Your task to perform on an android device: open app "Facebook Lite" (install if not already installed), go to login, and select forgot password Image 0: 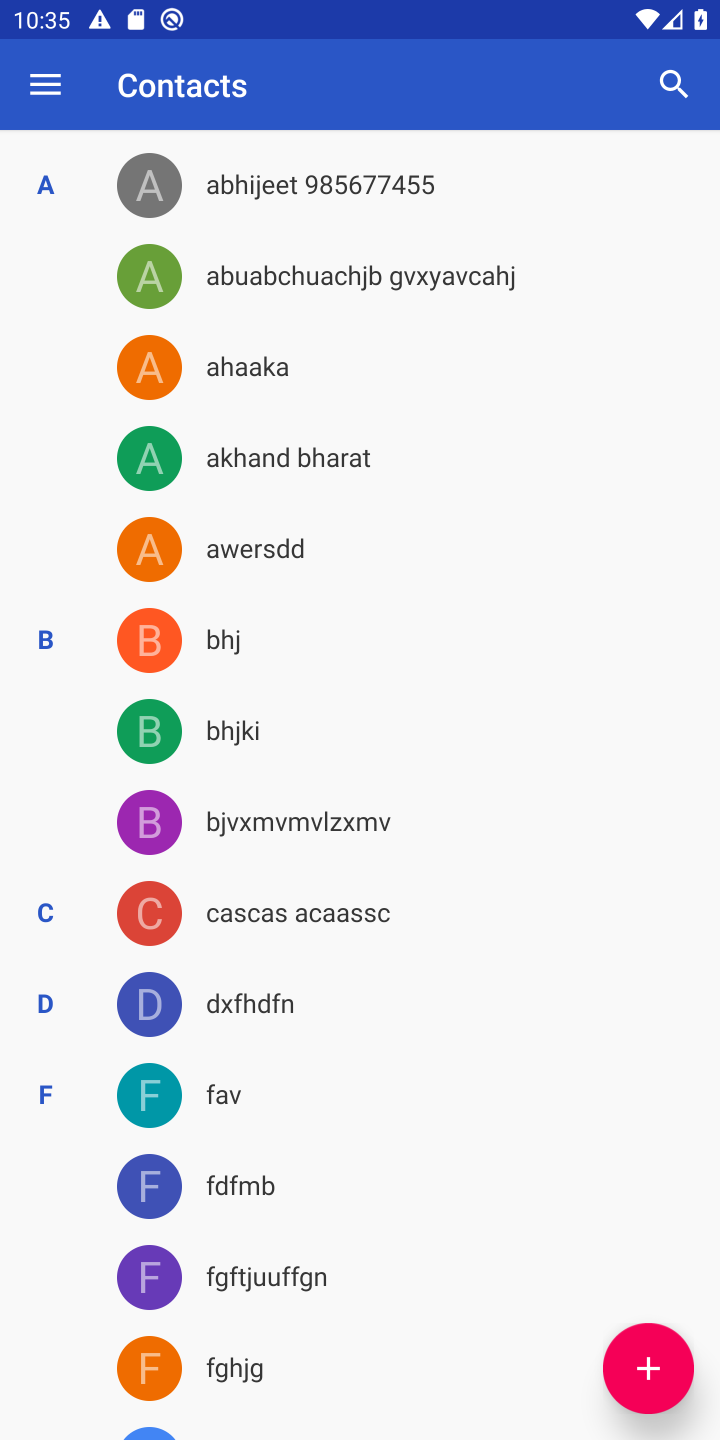
Step 0: press home button
Your task to perform on an android device: open app "Facebook Lite" (install if not already installed), go to login, and select forgot password Image 1: 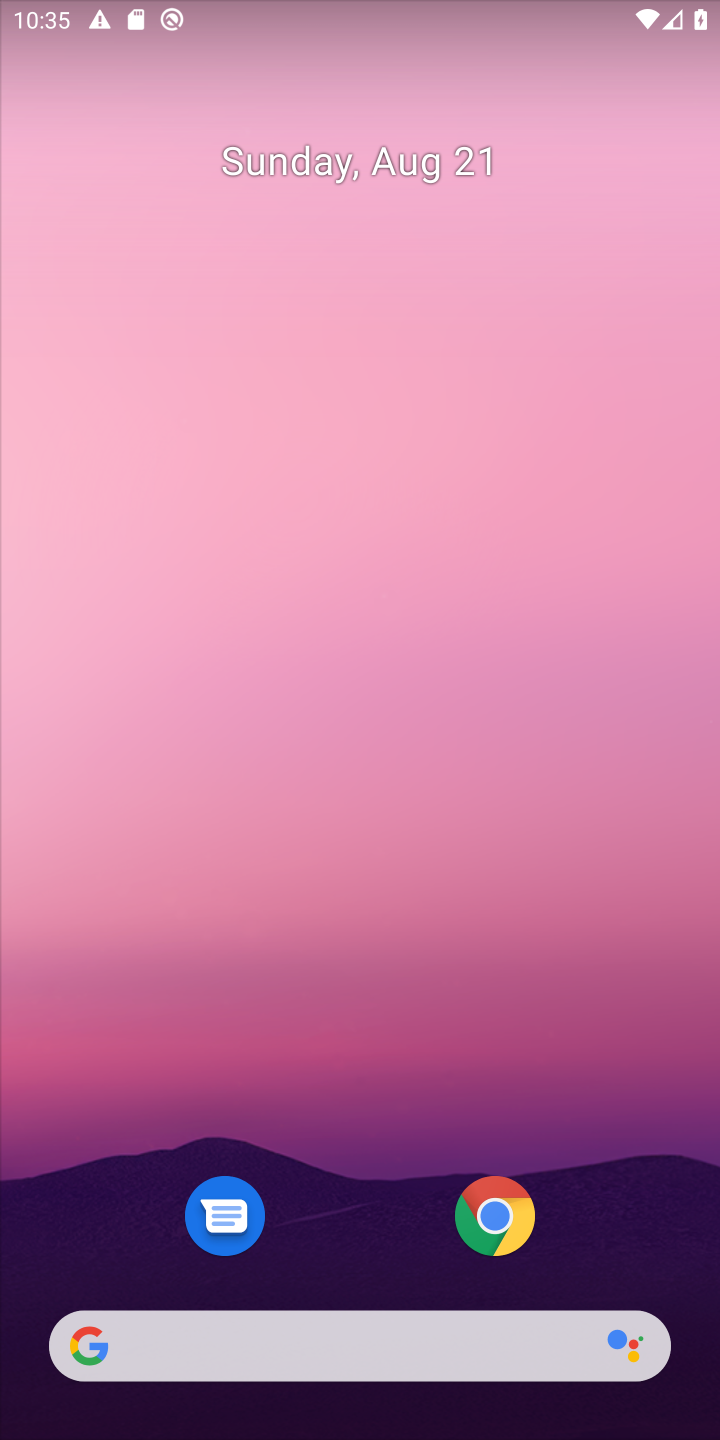
Step 1: drag from (101, 1037) to (351, 1)
Your task to perform on an android device: open app "Facebook Lite" (install if not already installed), go to login, and select forgot password Image 2: 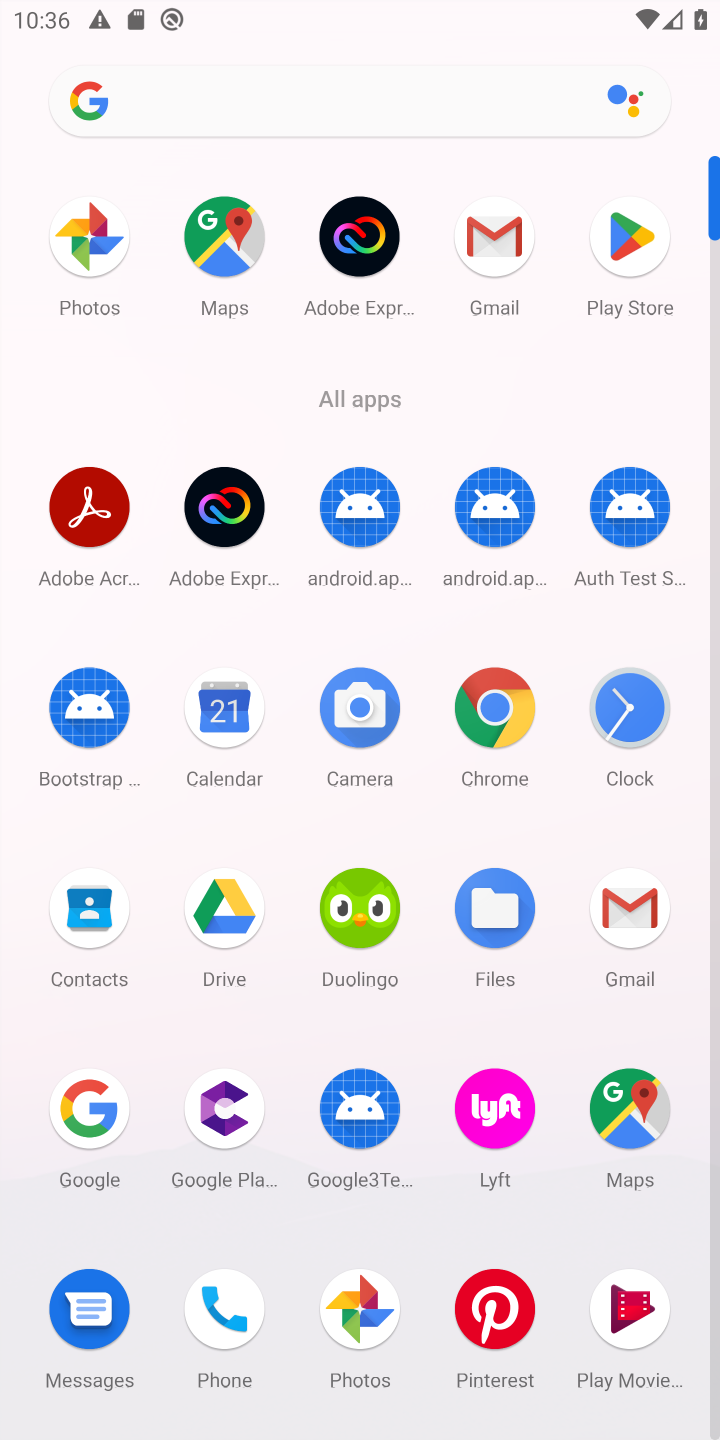
Step 2: click (656, 237)
Your task to perform on an android device: open app "Facebook Lite" (install if not already installed), go to login, and select forgot password Image 3: 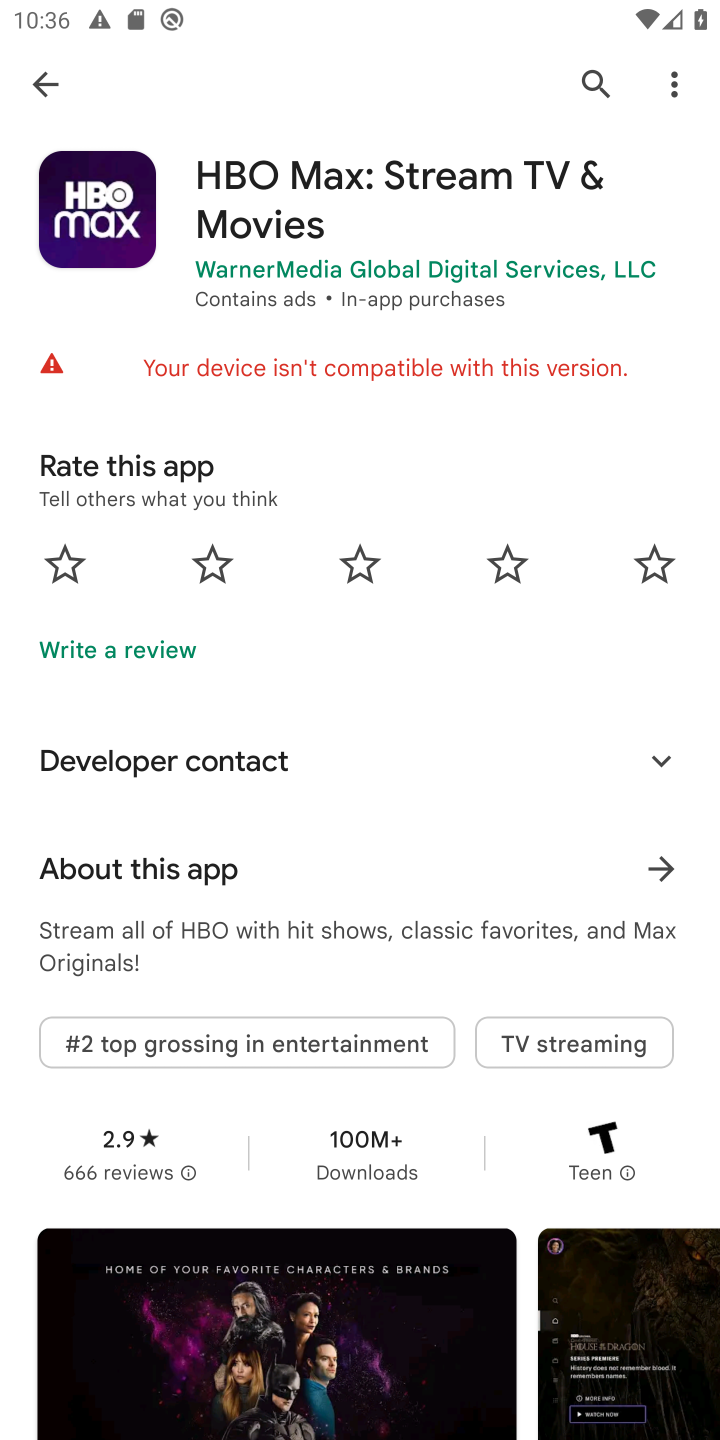
Step 3: press back button
Your task to perform on an android device: open app "Facebook Lite" (install if not already installed), go to login, and select forgot password Image 4: 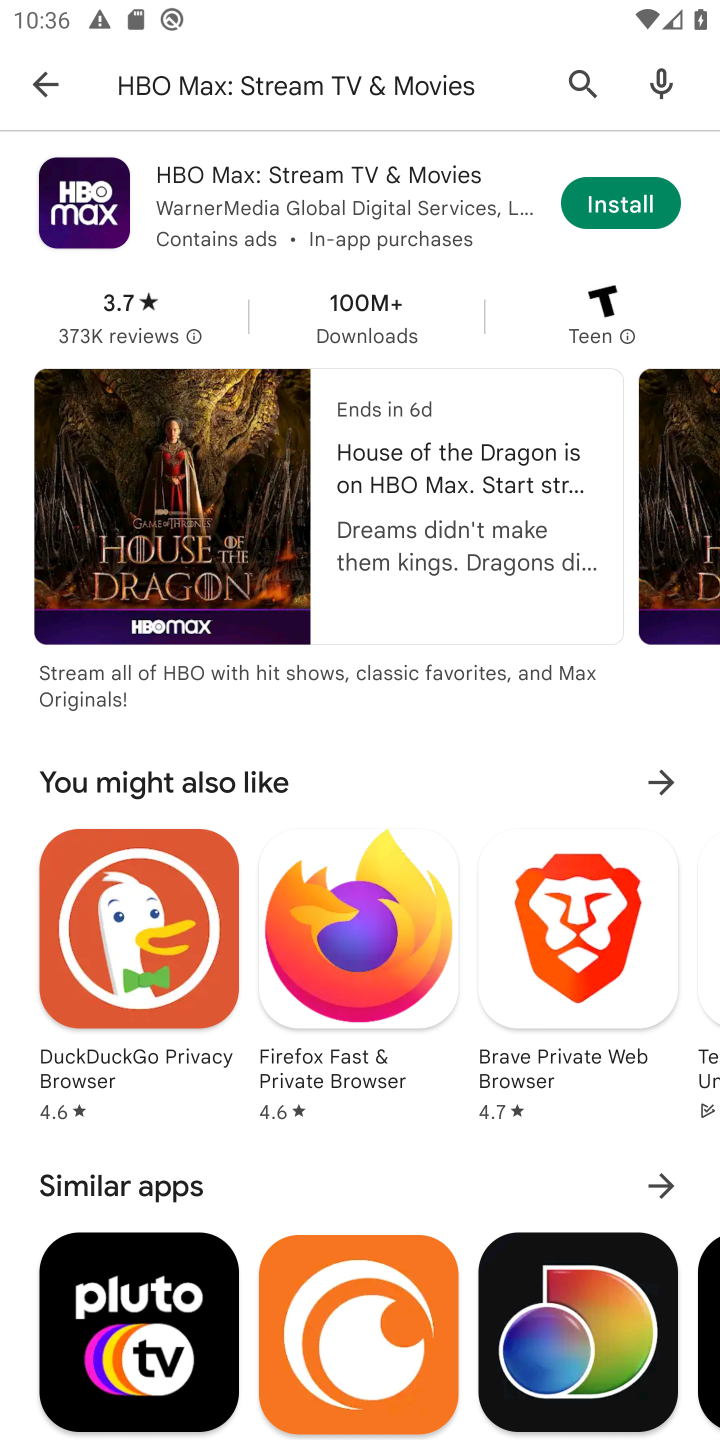
Step 4: press back button
Your task to perform on an android device: open app "Facebook Lite" (install if not already installed), go to login, and select forgot password Image 5: 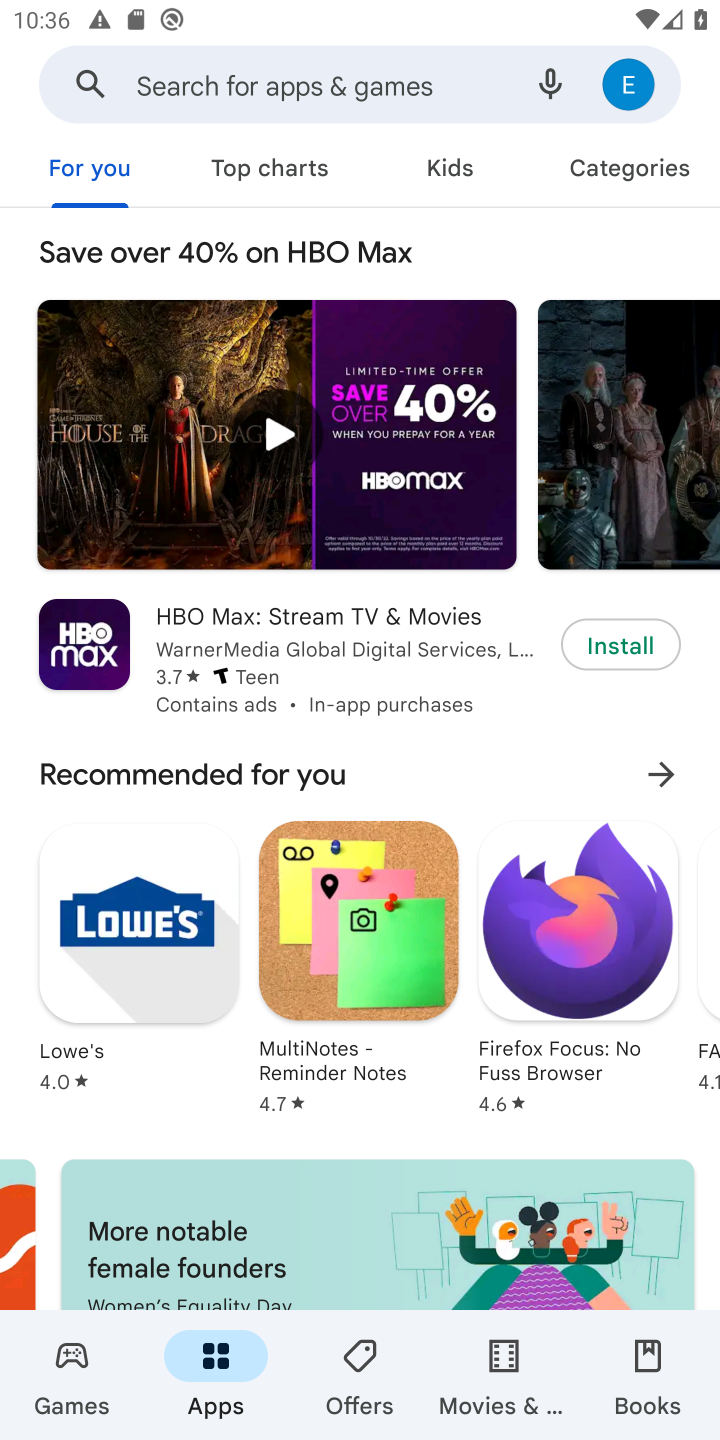
Step 5: click (330, 85)
Your task to perform on an android device: open app "Facebook Lite" (install if not already installed), go to login, and select forgot password Image 6: 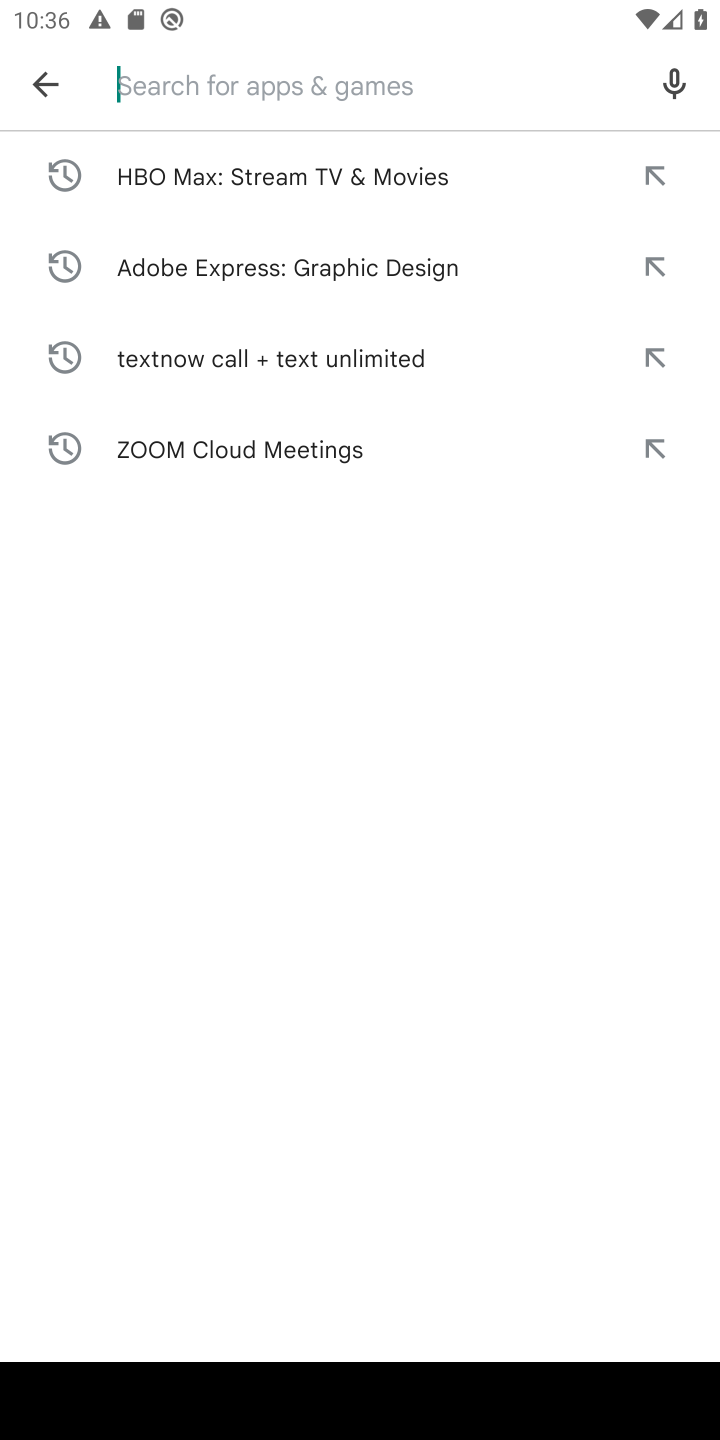
Step 6: type "Facebook Lite"
Your task to perform on an android device: open app "Facebook Lite" (install if not already installed), go to login, and select forgot password Image 7: 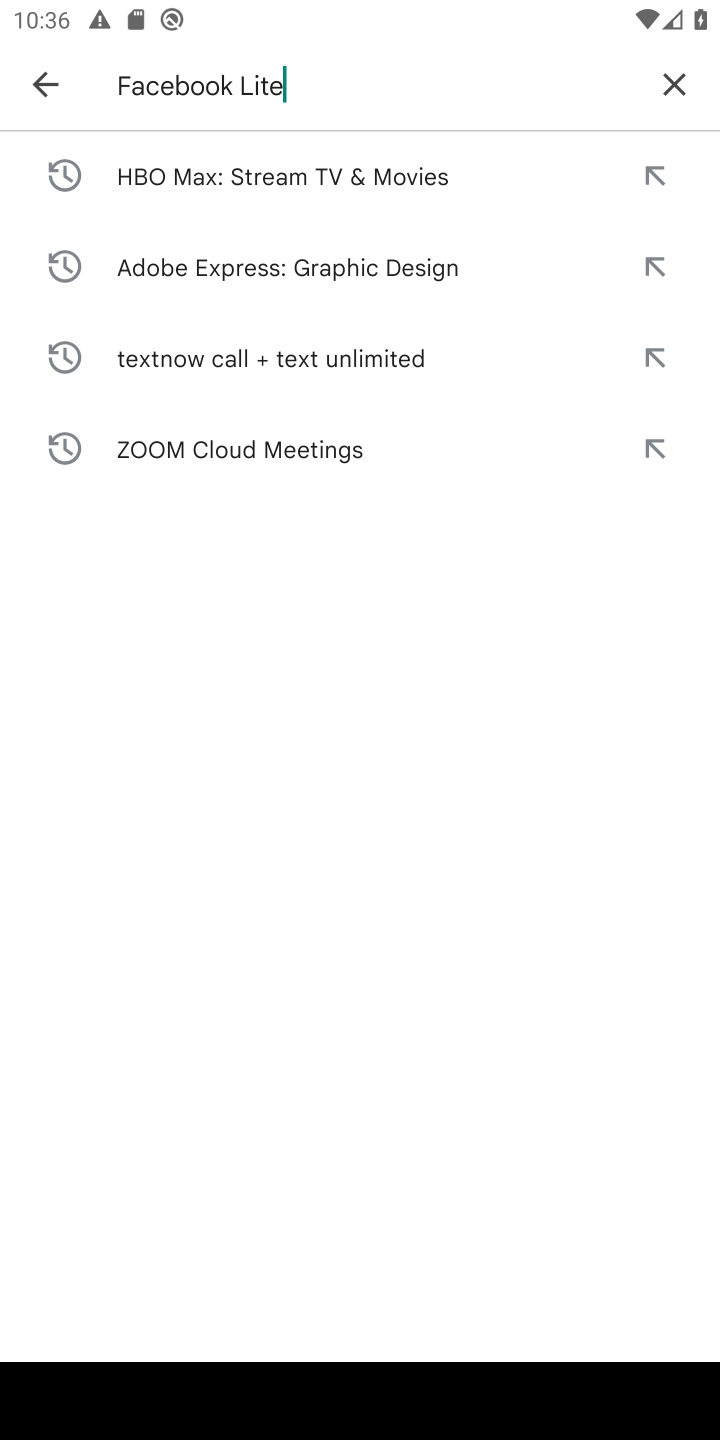
Step 7: press enter
Your task to perform on an android device: open app "Facebook Lite" (install if not already installed), go to login, and select forgot password Image 8: 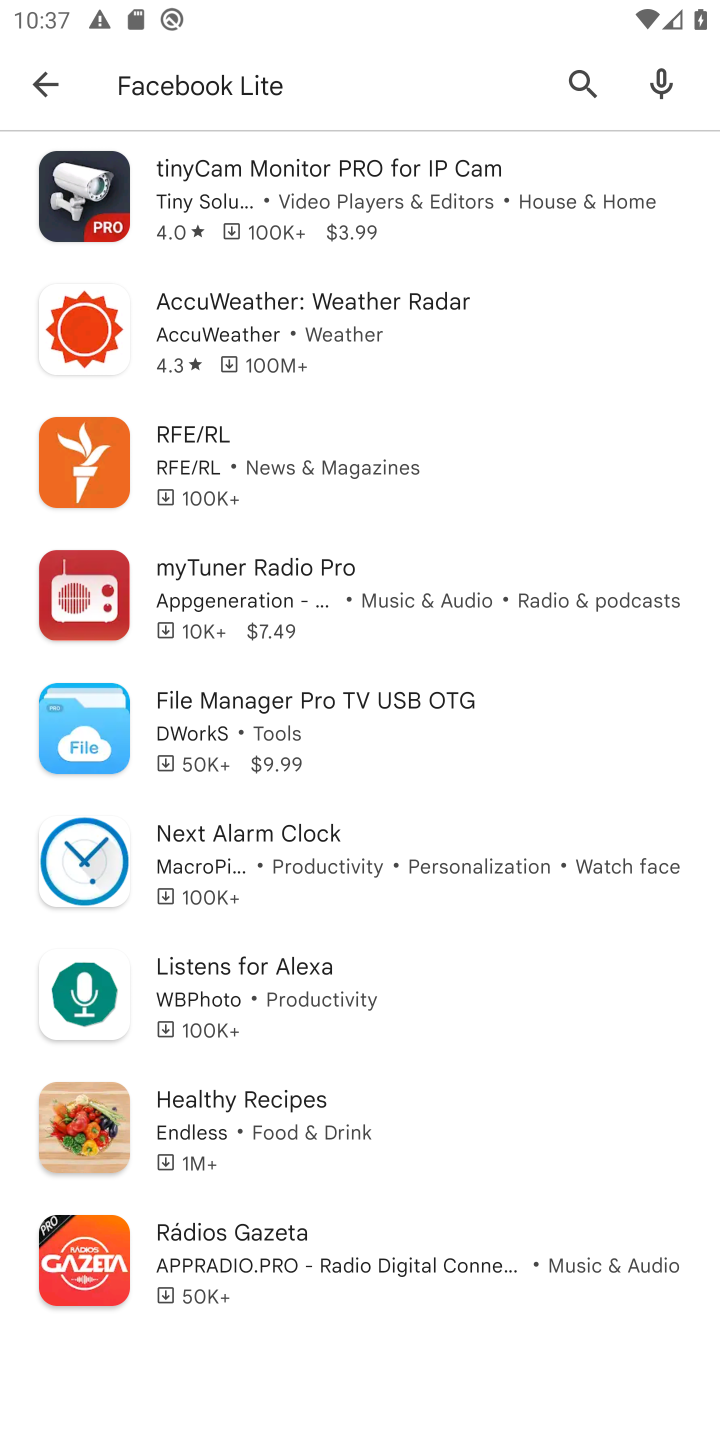
Step 8: drag from (244, 1170) to (358, 709)
Your task to perform on an android device: open app "Facebook Lite" (install if not already installed), go to login, and select forgot password Image 9: 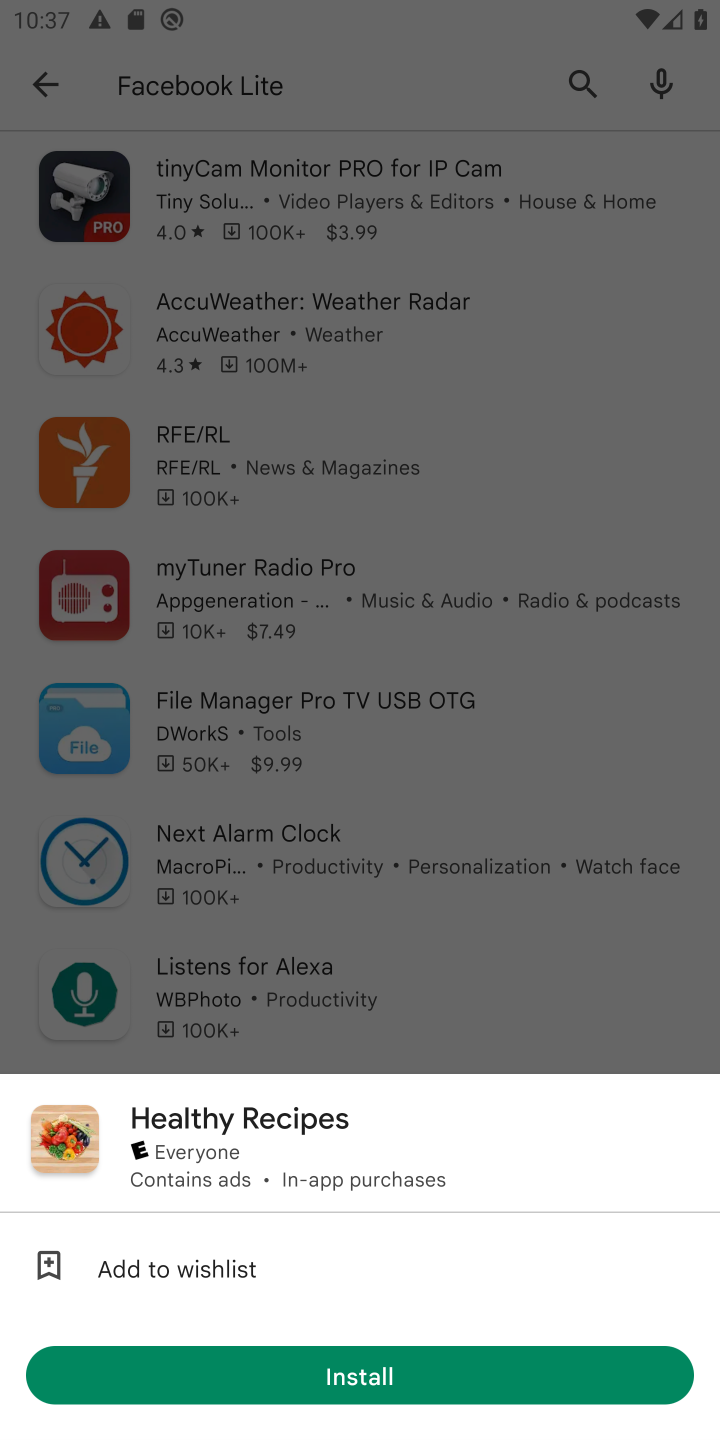
Step 9: press back button
Your task to perform on an android device: open app "Facebook Lite" (install if not already installed), go to login, and select forgot password Image 10: 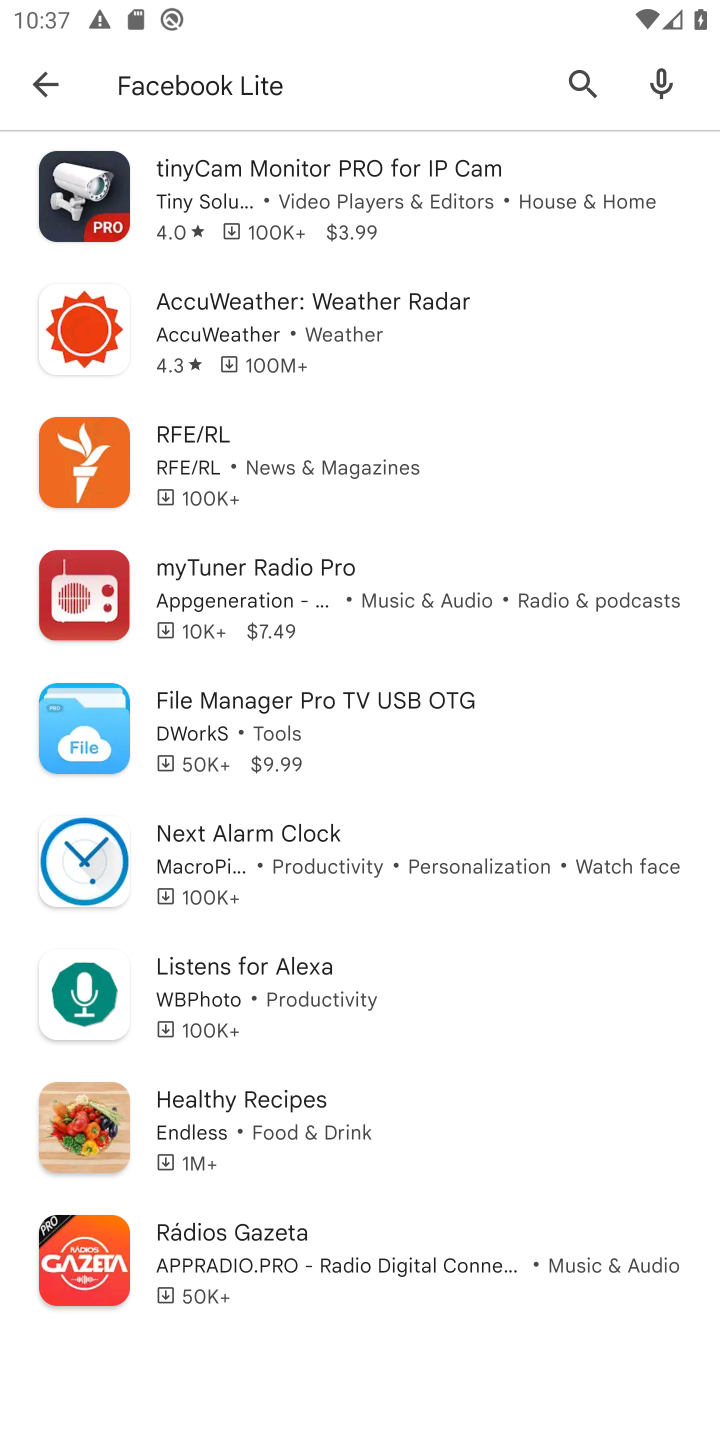
Step 10: drag from (162, 367) to (92, 988)
Your task to perform on an android device: open app "Facebook Lite" (install if not already installed), go to login, and select forgot password Image 11: 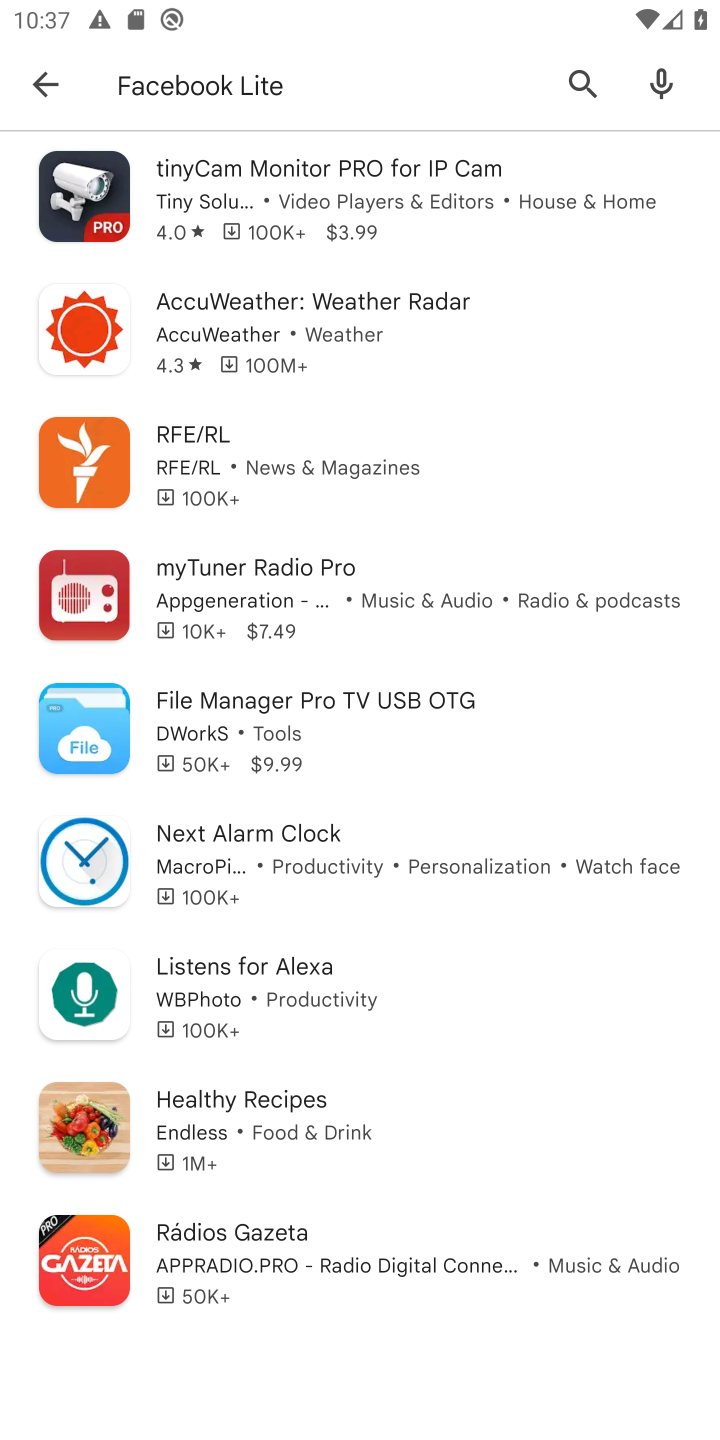
Step 11: drag from (348, 452) to (320, 1272)
Your task to perform on an android device: open app "Facebook Lite" (install if not already installed), go to login, and select forgot password Image 12: 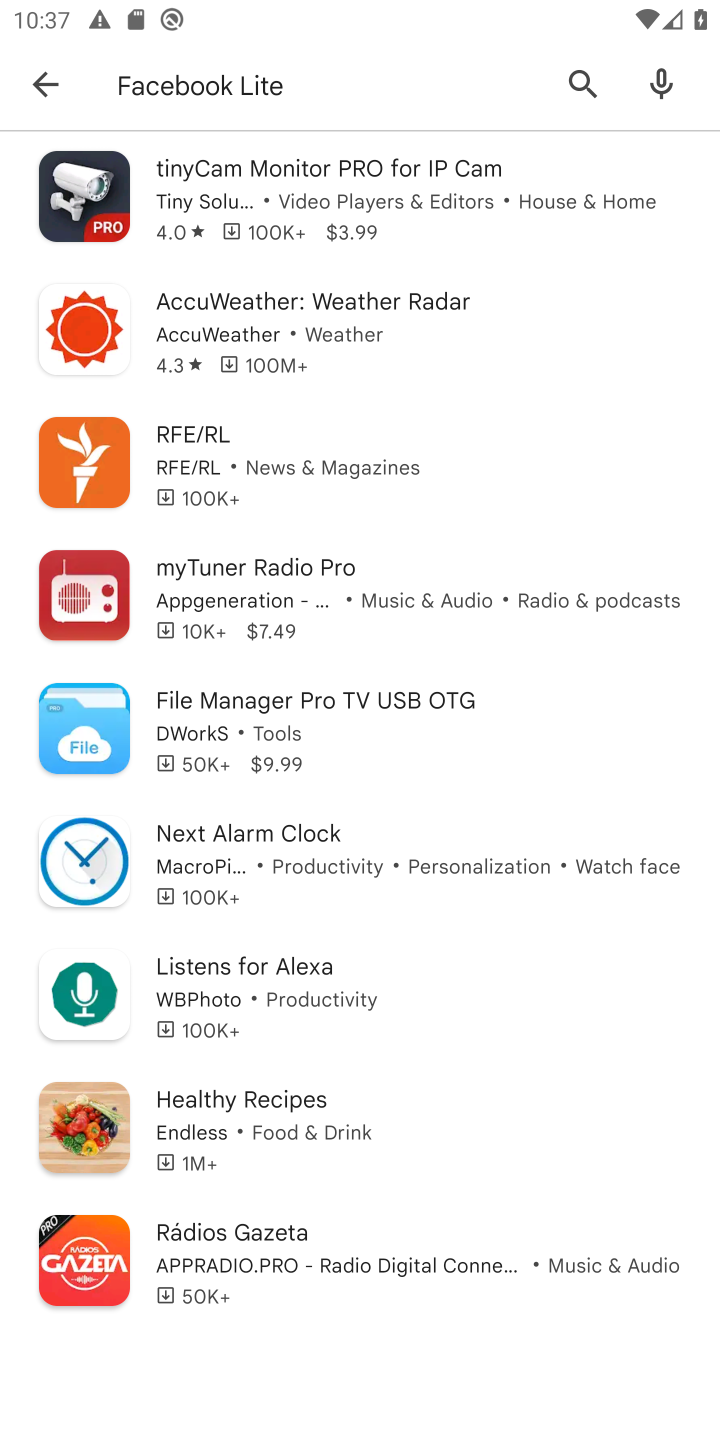
Step 12: click (39, 75)
Your task to perform on an android device: open app "Facebook Lite" (install if not already installed), go to login, and select forgot password Image 13: 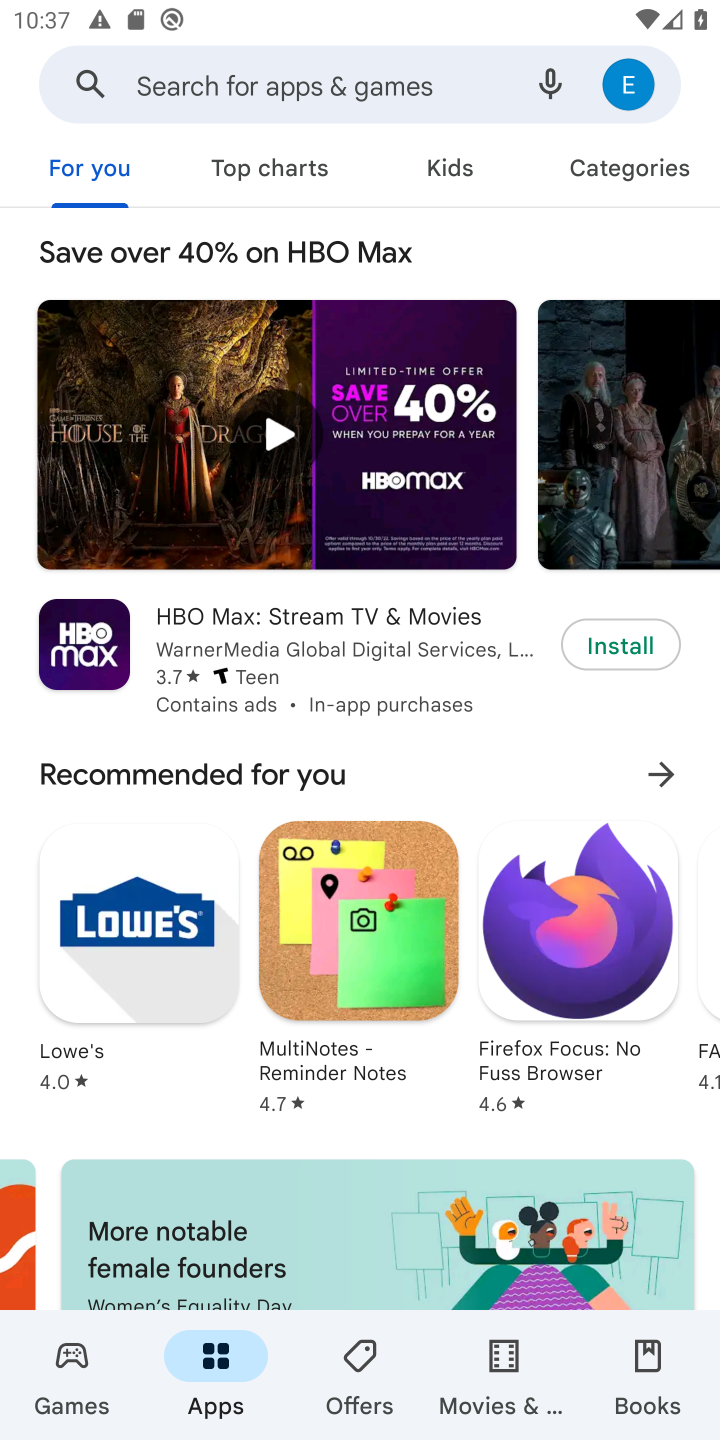
Step 13: click (156, 80)
Your task to perform on an android device: open app "Facebook Lite" (install if not already installed), go to login, and select forgot password Image 14: 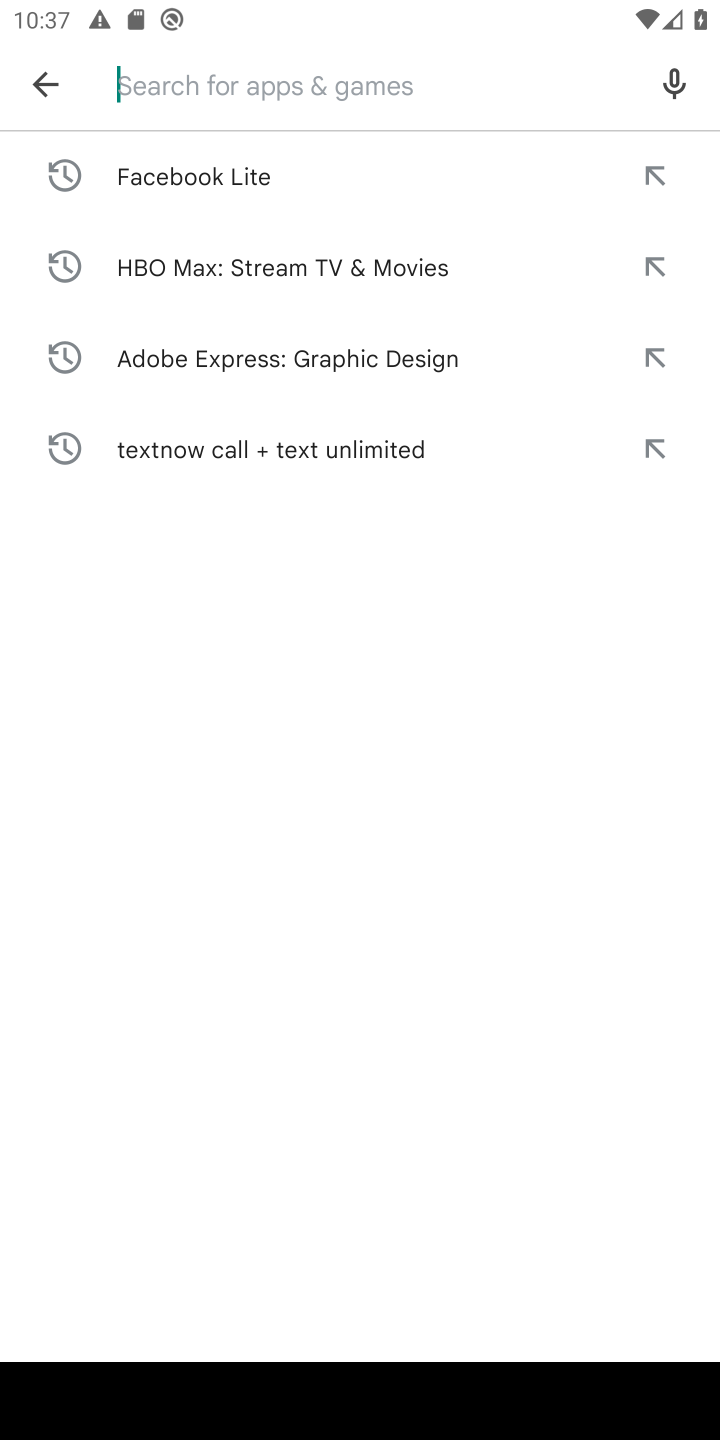
Step 14: click (239, 201)
Your task to perform on an android device: open app "Facebook Lite" (install if not already installed), go to login, and select forgot password Image 15: 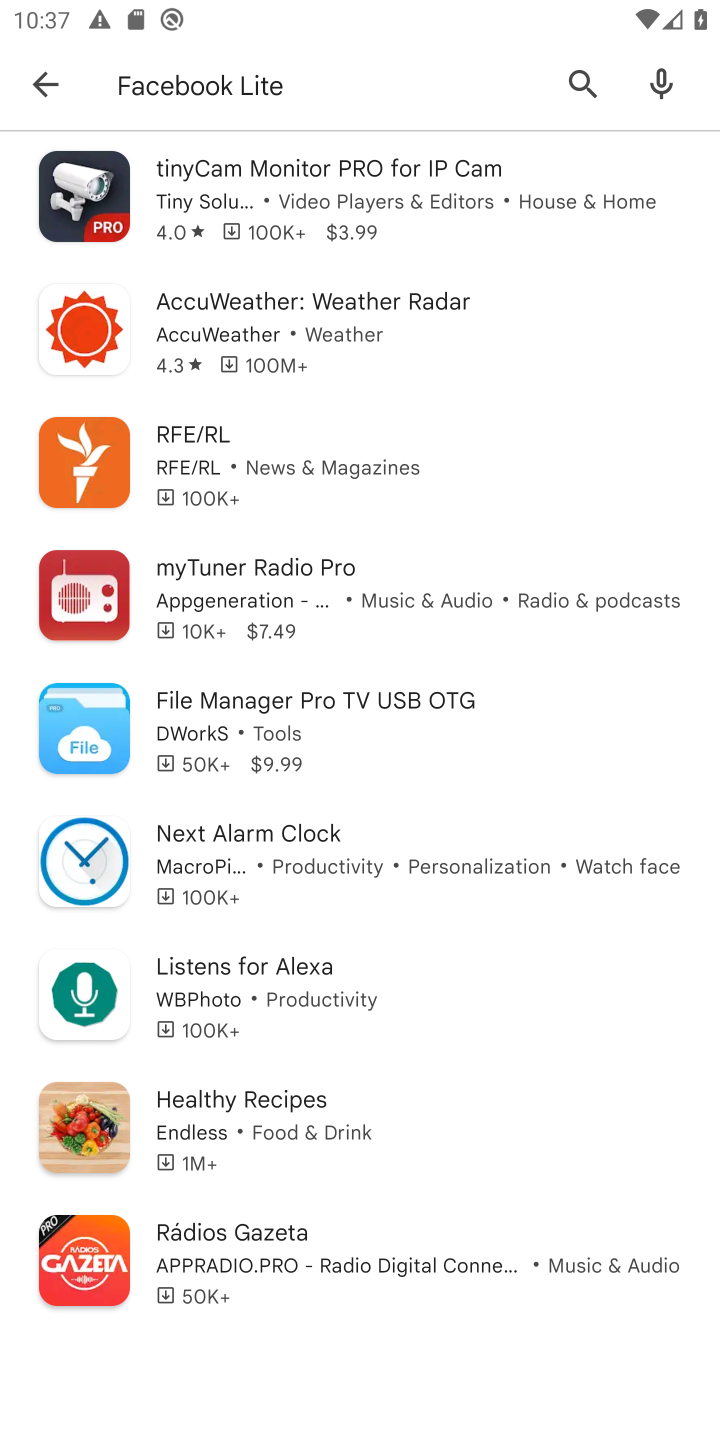
Step 15: task complete